Your task to perform on an android device: change notifications settings Image 0: 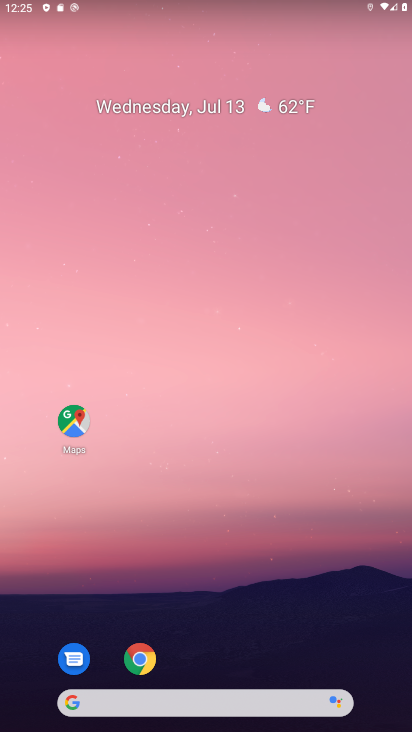
Step 0: drag from (253, 618) to (191, 73)
Your task to perform on an android device: change notifications settings Image 1: 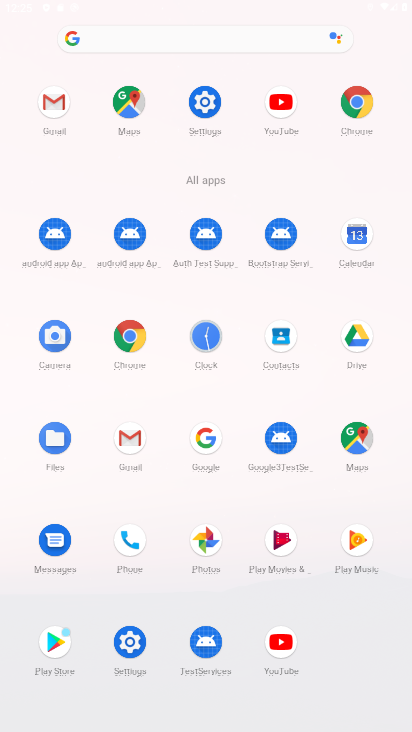
Step 1: click (210, 97)
Your task to perform on an android device: change notifications settings Image 2: 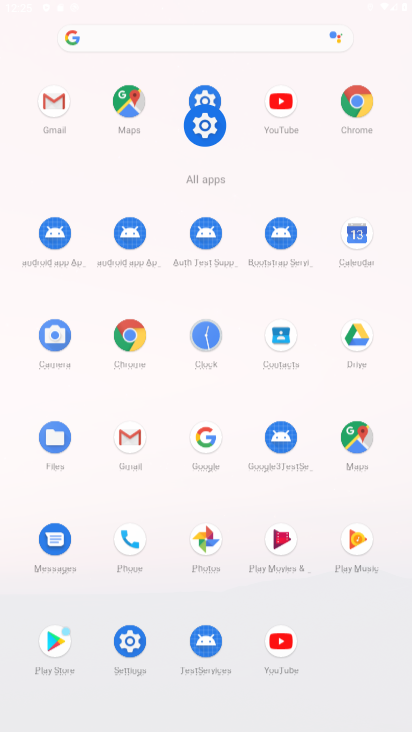
Step 2: click (210, 96)
Your task to perform on an android device: change notifications settings Image 3: 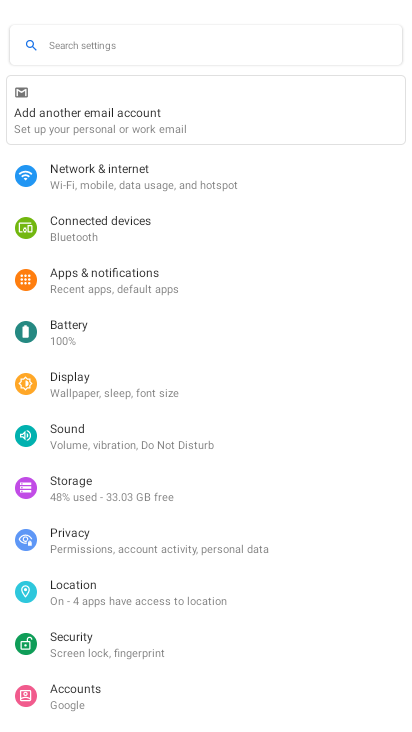
Step 3: click (105, 289)
Your task to perform on an android device: change notifications settings Image 4: 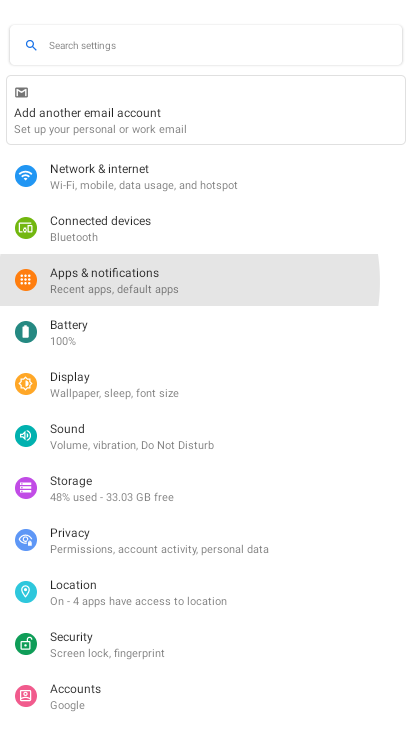
Step 4: click (105, 286)
Your task to perform on an android device: change notifications settings Image 5: 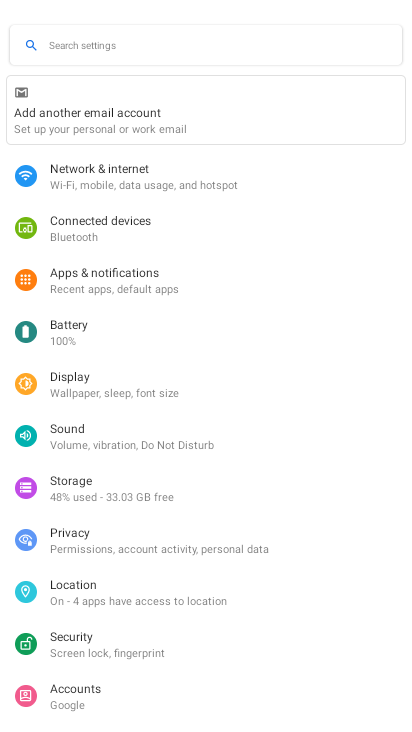
Step 5: click (106, 284)
Your task to perform on an android device: change notifications settings Image 6: 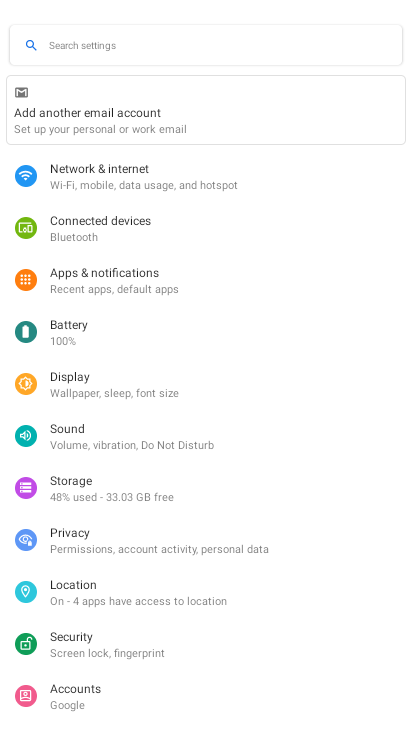
Step 6: click (113, 278)
Your task to perform on an android device: change notifications settings Image 7: 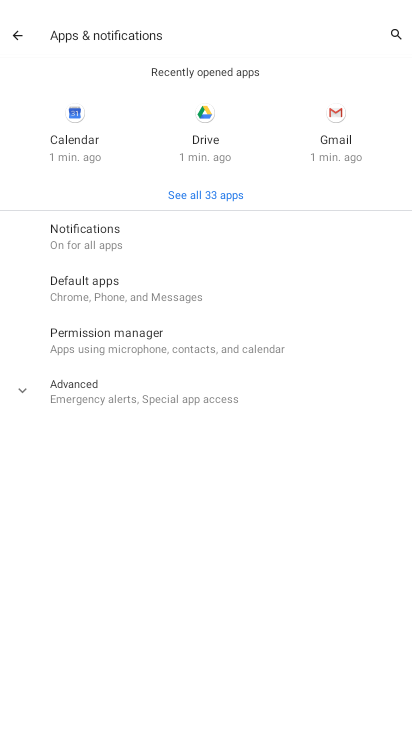
Step 7: click (91, 238)
Your task to perform on an android device: change notifications settings Image 8: 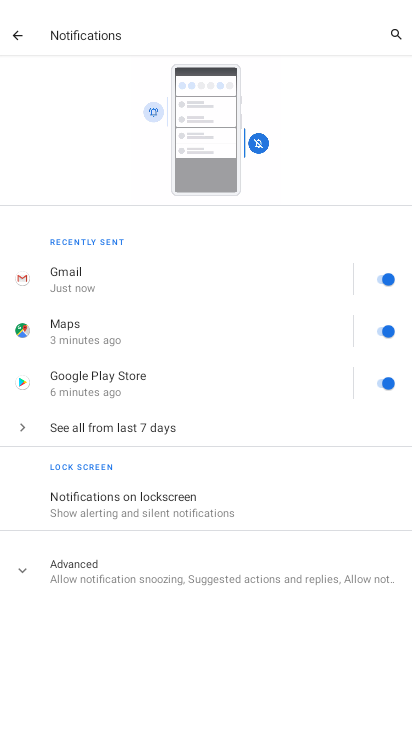
Step 8: click (108, 486)
Your task to perform on an android device: change notifications settings Image 9: 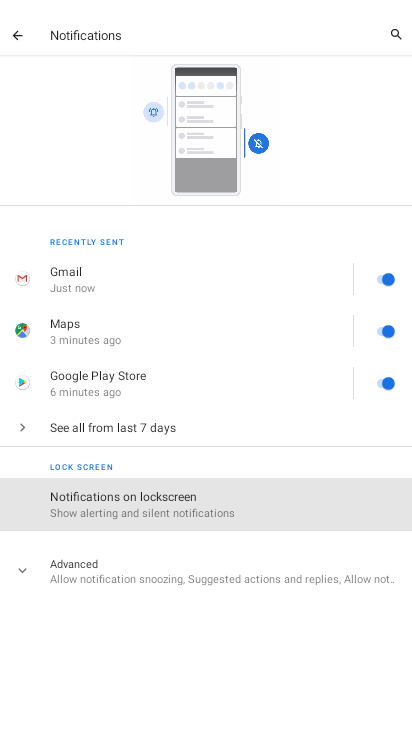
Step 9: click (108, 486)
Your task to perform on an android device: change notifications settings Image 10: 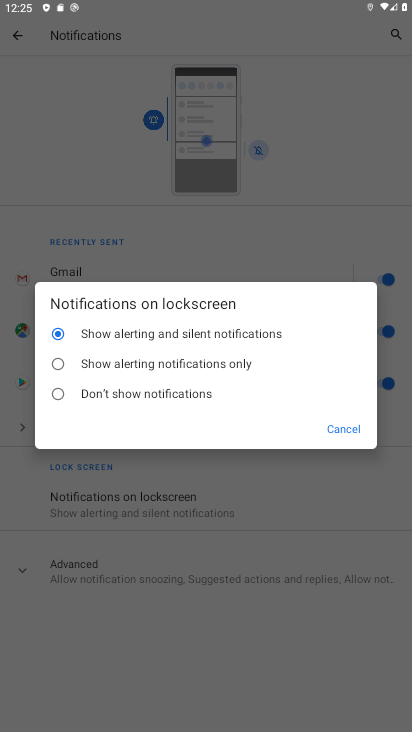
Step 10: click (338, 435)
Your task to perform on an android device: change notifications settings Image 11: 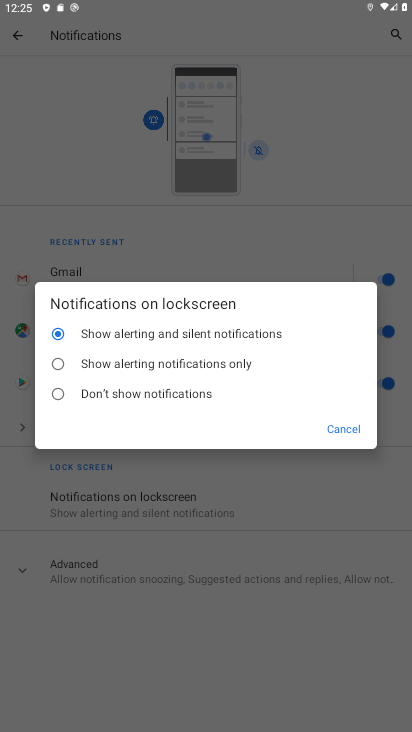
Step 11: click (317, 226)
Your task to perform on an android device: change notifications settings Image 12: 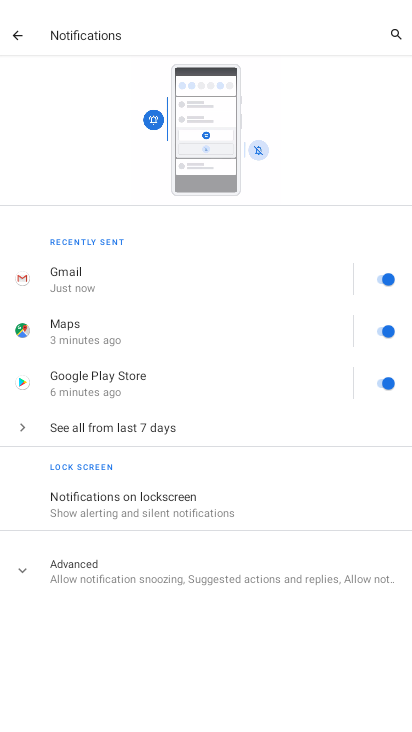
Step 12: click (355, 415)
Your task to perform on an android device: change notifications settings Image 13: 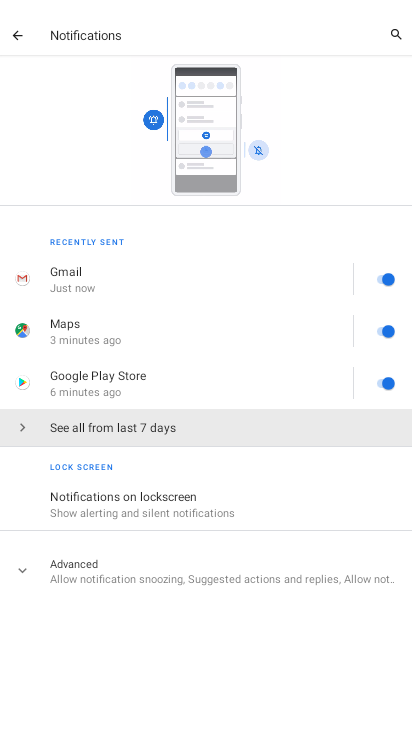
Step 13: click (386, 279)
Your task to perform on an android device: change notifications settings Image 14: 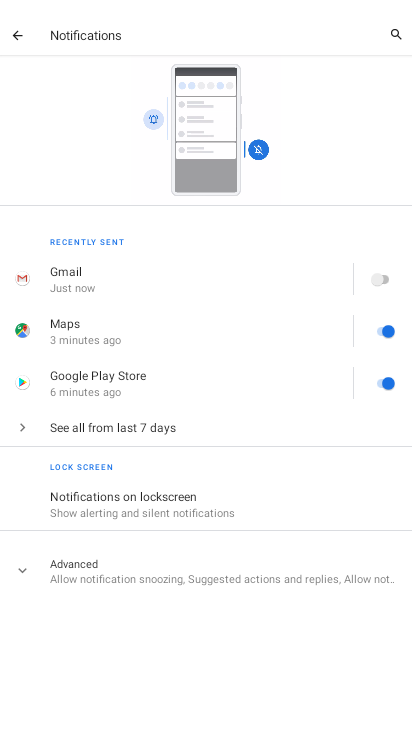
Step 14: click (385, 334)
Your task to perform on an android device: change notifications settings Image 15: 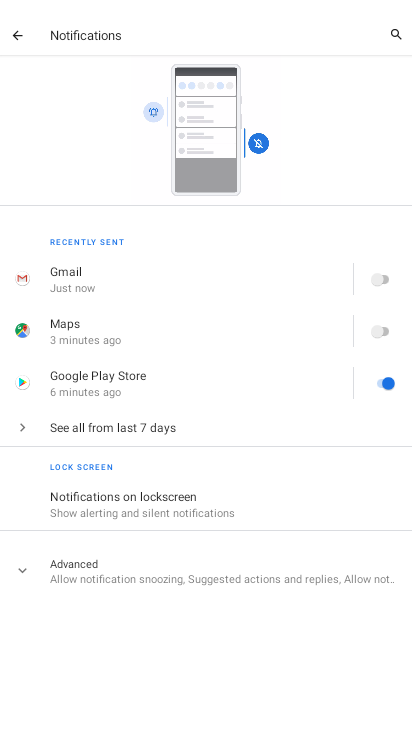
Step 15: click (391, 376)
Your task to perform on an android device: change notifications settings Image 16: 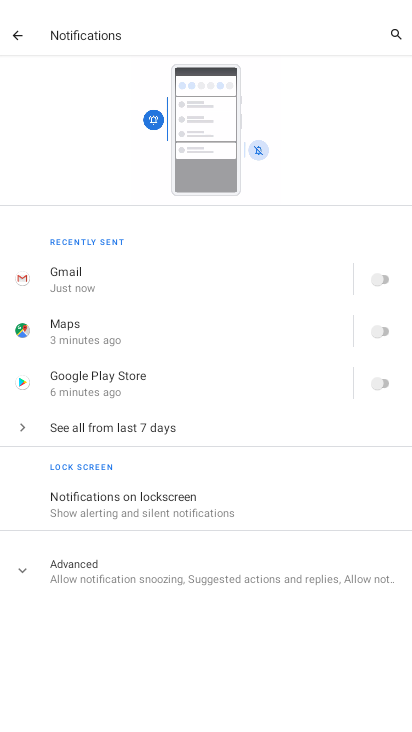
Step 16: task complete